Your task to perform on an android device: clear all cookies in the chrome app Image 0: 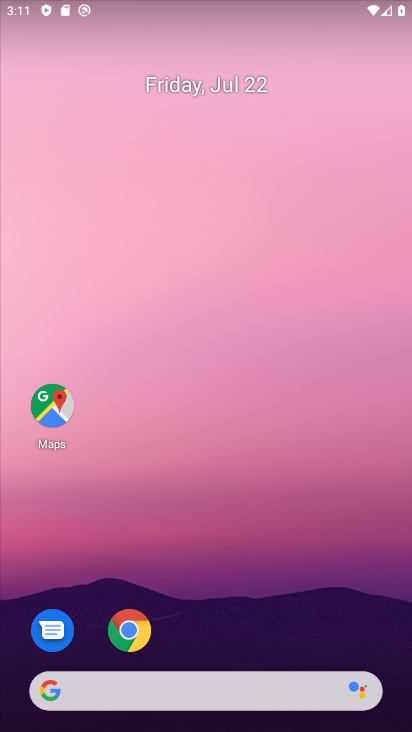
Step 0: drag from (246, 651) to (204, 231)
Your task to perform on an android device: clear all cookies in the chrome app Image 1: 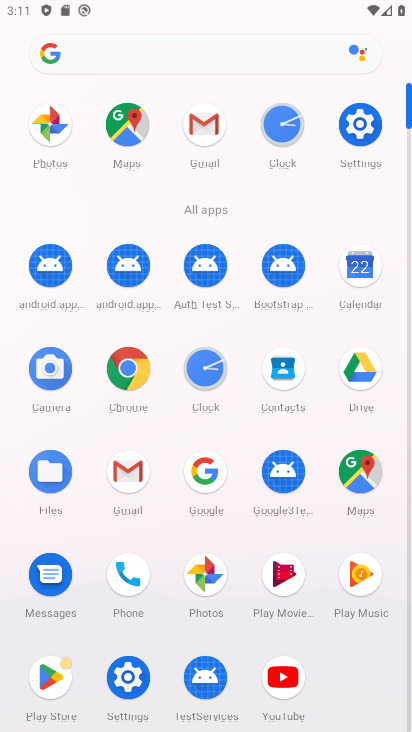
Step 1: click (130, 354)
Your task to perform on an android device: clear all cookies in the chrome app Image 2: 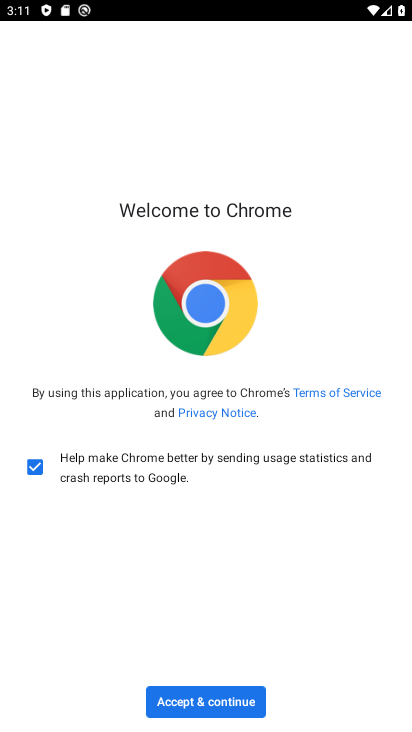
Step 2: click (239, 704)
Your task to perform on an android device: clear all cookies in the chrome app Image 3: 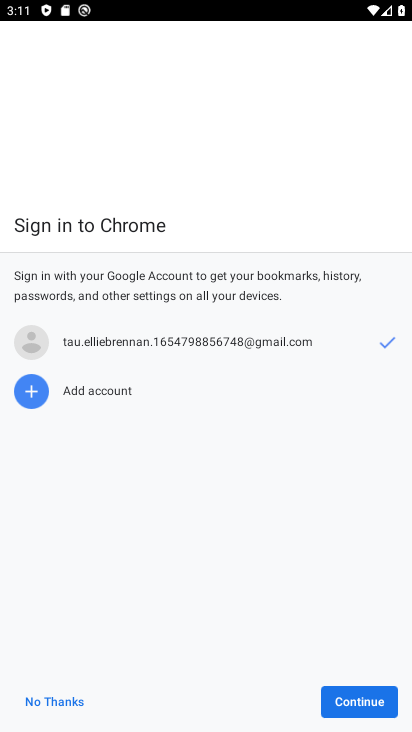
Step 3: click (372, 693)
Your task to perform on an android device: clear all cookies in the chrome app Image 4: 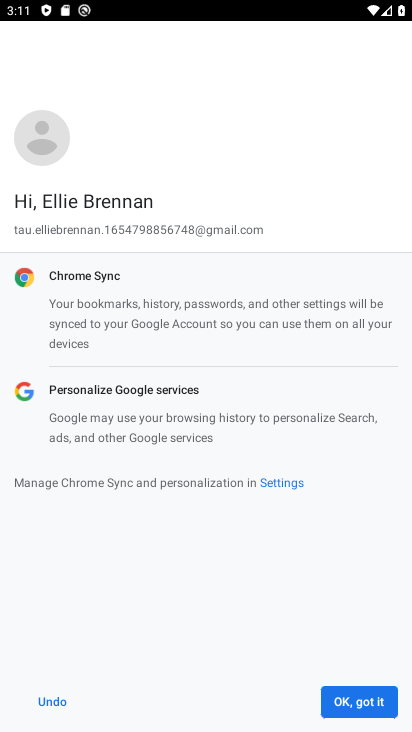
Step 4: click (372, 702)
Your task to perform on an android device: clear all cookies in the chrome app Image 5: 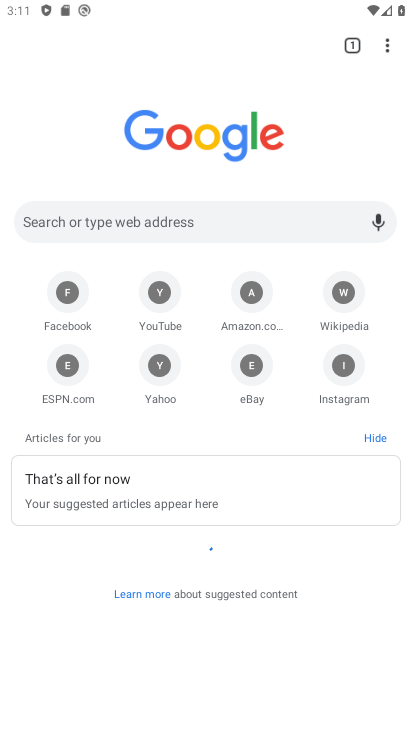
Step 5: click (394, 51)
Your task to perform on an android device: clear all cookies in the chrome app Image 6: 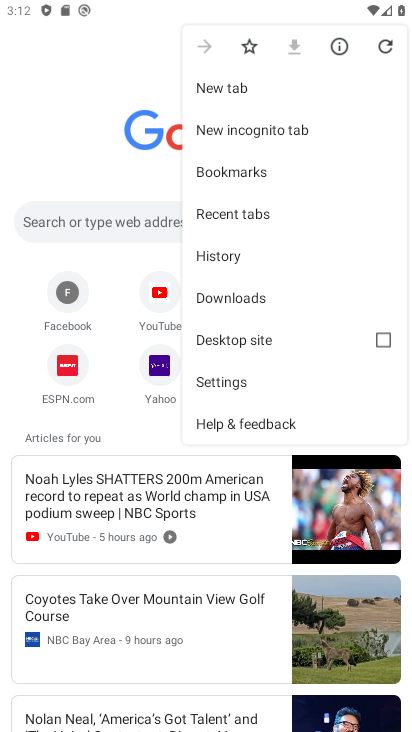
Step 6: click (243, 258)
Your task to perform on an android device: clear all cookies in the chrome app Image 7: 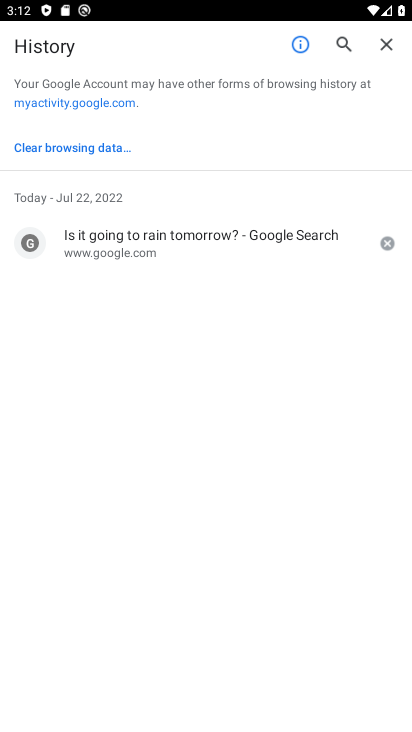
Step 7: click (96, 151)
Your task to perform on an android device: clear all cookies in the chrome app Image 8: 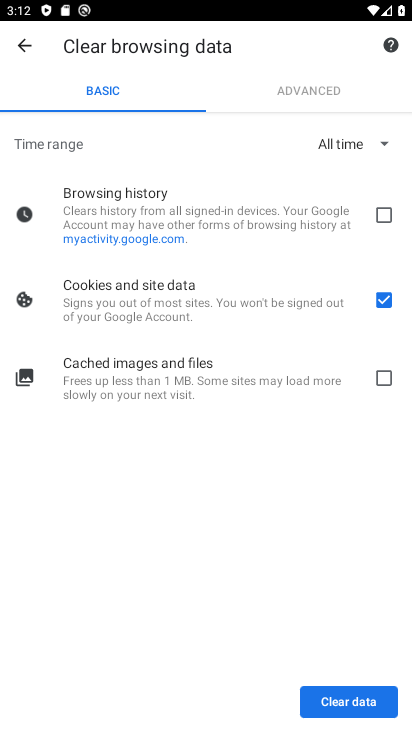
Step 8: click (383, 705)
Your task to perform on an android device: clear all cookies in the chrome app Image 9: 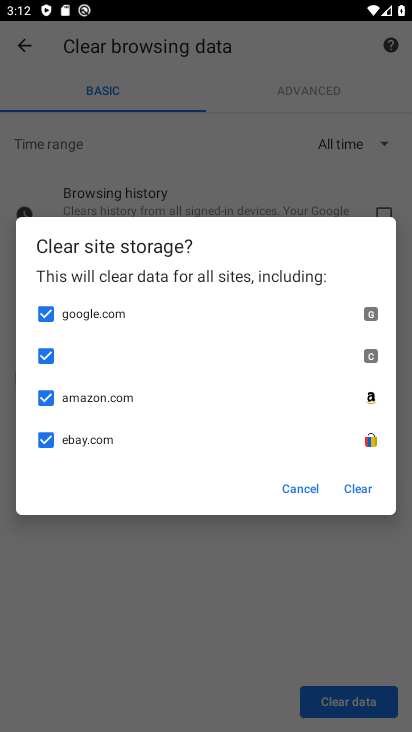
Step 9: click (363, 485)
Your task to perform on an android device: clear all cookies in the chrome app Image 10: 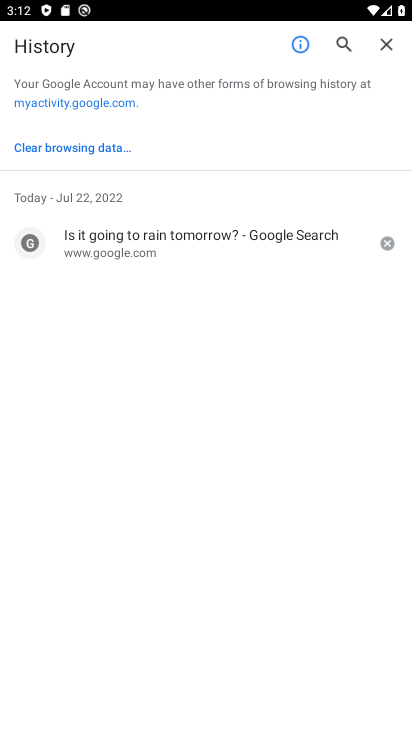
Step 10: task complete